Your task to perform on an android device: show emergency info Image 0: 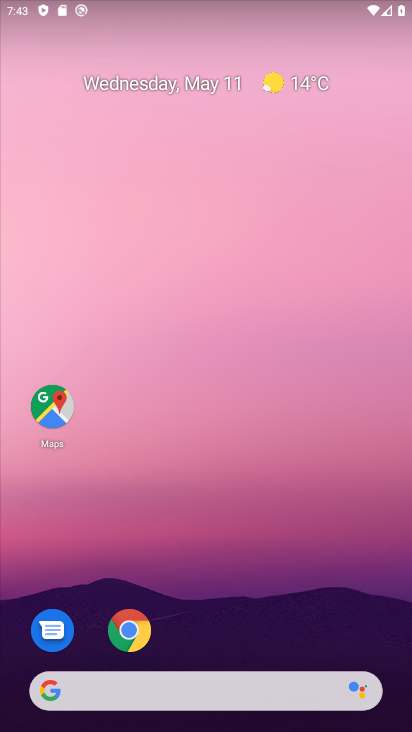
Step 0: drag from (286, 618) to (200, 238)
Your task to perform on an android device: show emergency info Image 1: 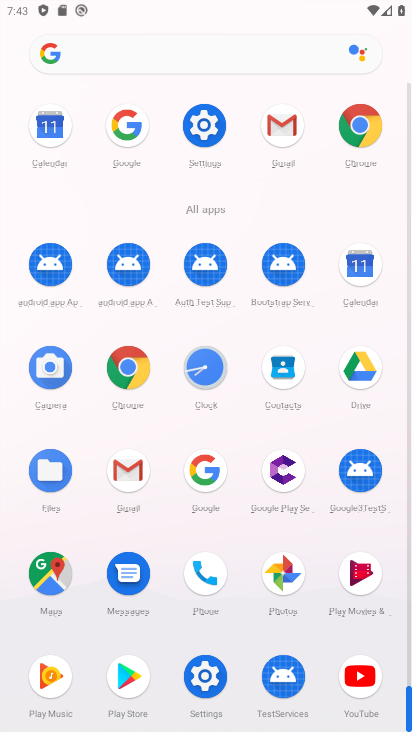
Step 1: click (205, 122)
Your task to perform on an android device: show emergency info Image 2: 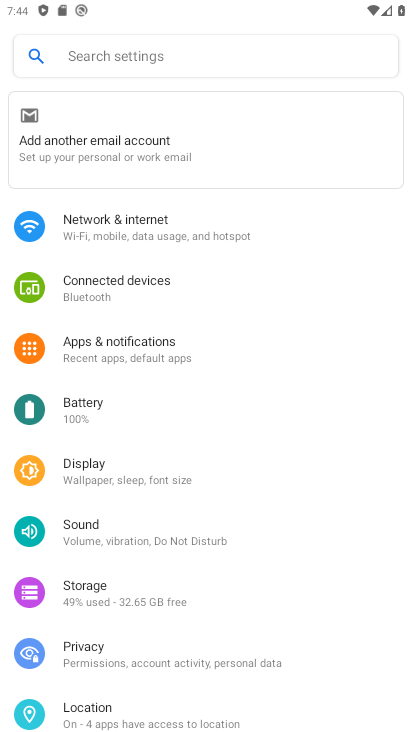
Step 2: drag from (135, 573) to (59, 36)
Your task to perform on an android device: show emergency info Image 3: 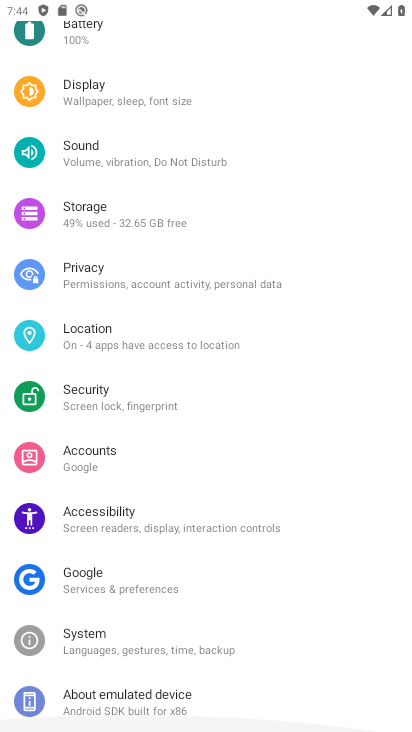
Step 3: drag from (171, 438) to (107, 219)
Your task to perform on an android device: show emergency info Image 4: 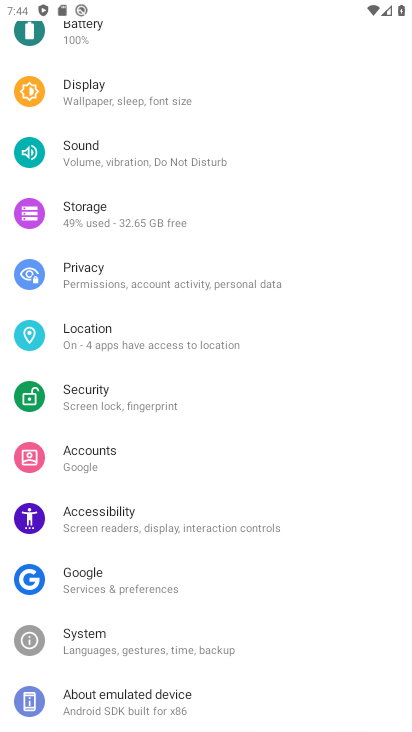
Step 4: drag from (193, 619) to (249, 270)
Your task to perform on an android device: show emergency info Image 5: 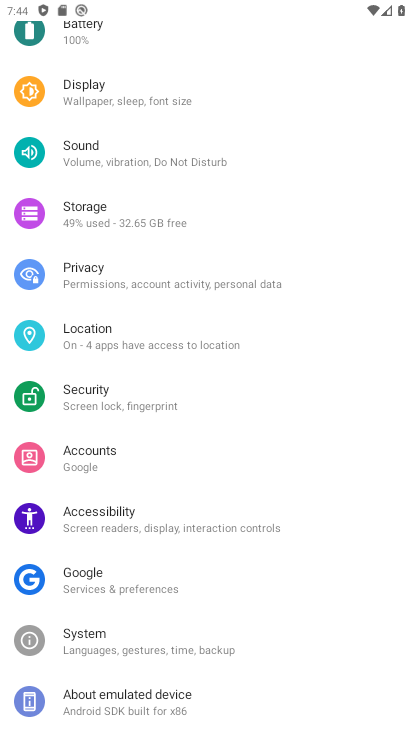
Step 5: click (126, 702)
Your task to perform on an android device: show emergency info Image 6: 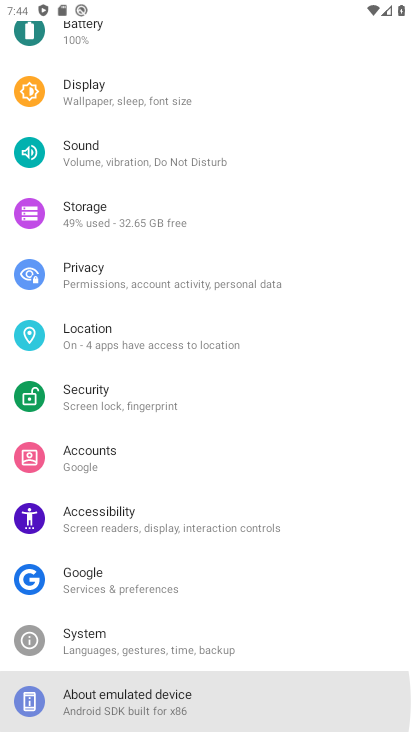
Step 6: click (126, 704)
Your task to perform on an android device: show emergency info Image 7: 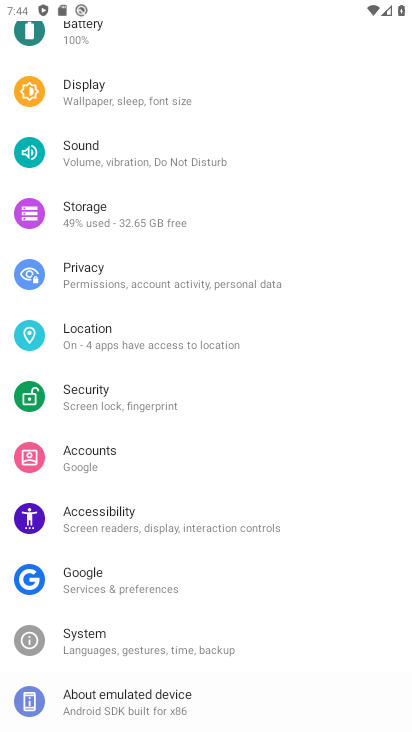
Step 7: click (128, 705)
Your task to perform on an android device: show emergency info Image 8: 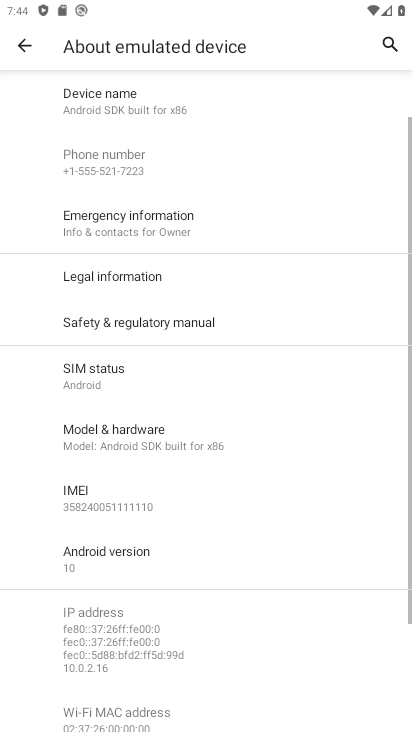
Step 8: drag from (150, 93) to (145, 166)
Your task to perform on an android device: show emergency info Image 9: 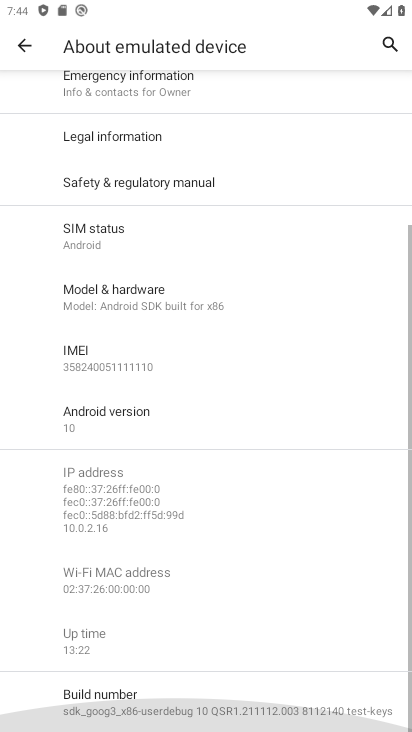
Step 9: click (182, 26)
Your task to perform on an android device: show emergency info Image 10: 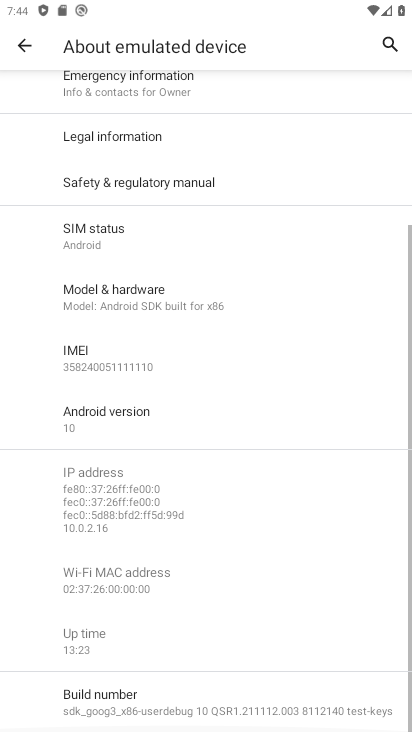
Step 10: task complete